Your task to perform on an android device: turn on location history Image 0: 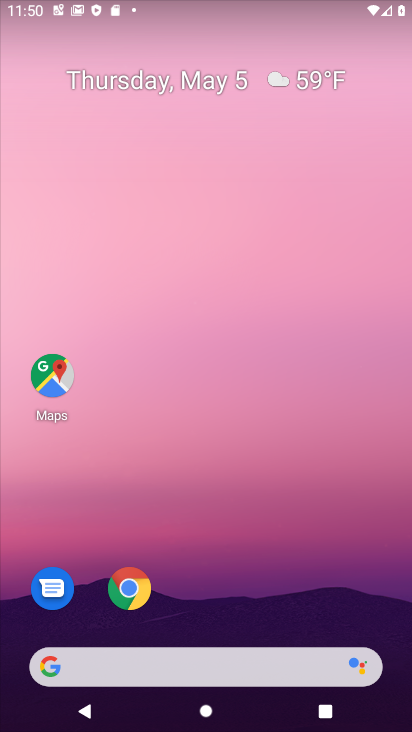
Step 0: drag from (165, 668) to (351, 98)
Your task to perform on an android device: turn on location history Image 1: 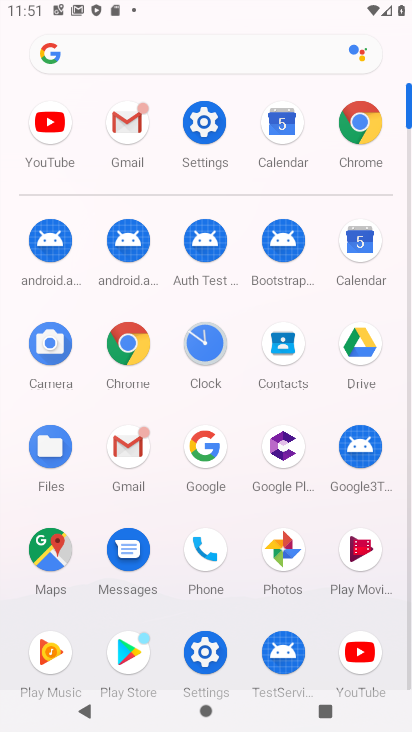
Step 1: click (211, 131)
Your task to perform on an android device: turn on location history Image 2: 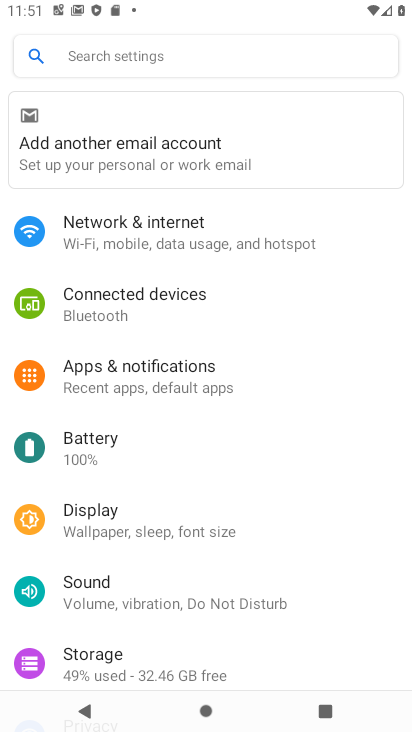
Step 2: drag from (173, 562) to (329, 184)
Your task to perform on an android device: turn on location history Image 3: 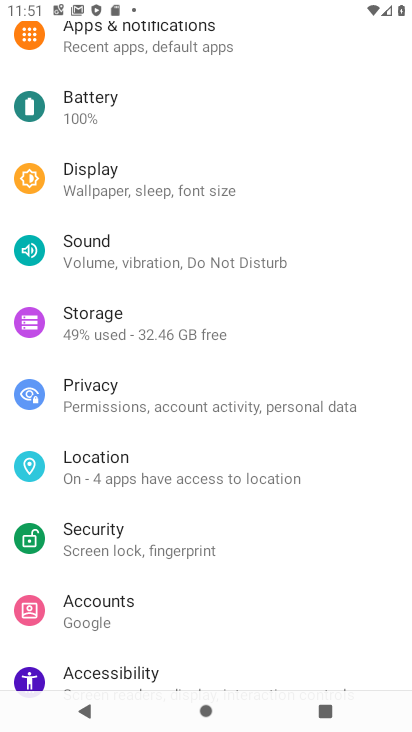
Step 3: click (120, 464)
Your task to perform on an android device: turn on location history Image 4: 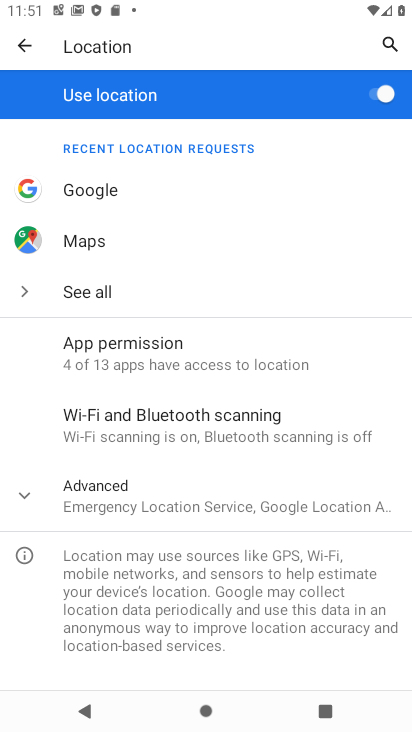
Step 4: click (133, 498)
Your task to perform on an android device: turn on location history Image 5: 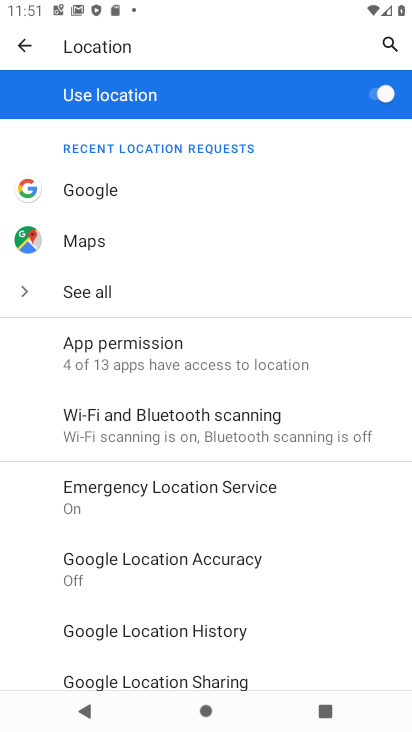
Step 5: drag from (276, 536) to (332, 380)
Your task to perform on an android device: turn on location history Image 6: 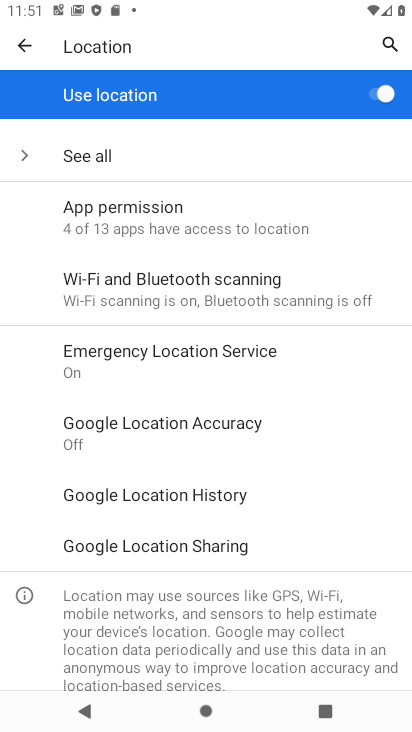
Step 6: click (209, 498)
Your task to perform on an android device: turn on location history Image 7: 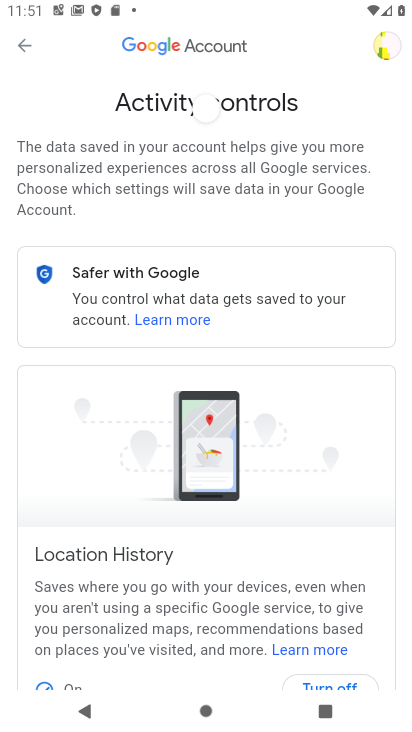
Step 7: task complete